Your task to perform on an android device: toggle pop-ups in chrome Image 0: 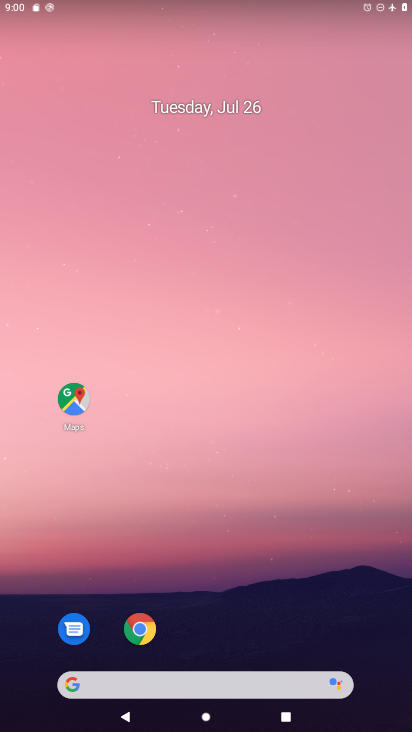
Step 0: click (134, 638)
Your task to perform on an android device: toggle pop-ups in chrome Image 1: 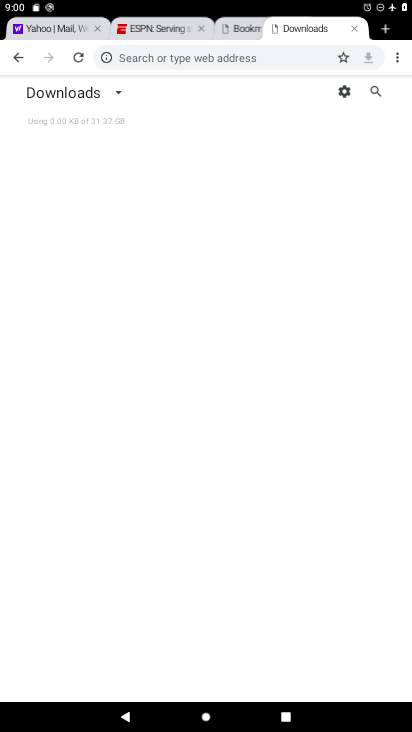
Step 1: drag from (397, 56) to (294, 260)
Your task to perform on an android device: toggle pop-ups in chrome Image 2: 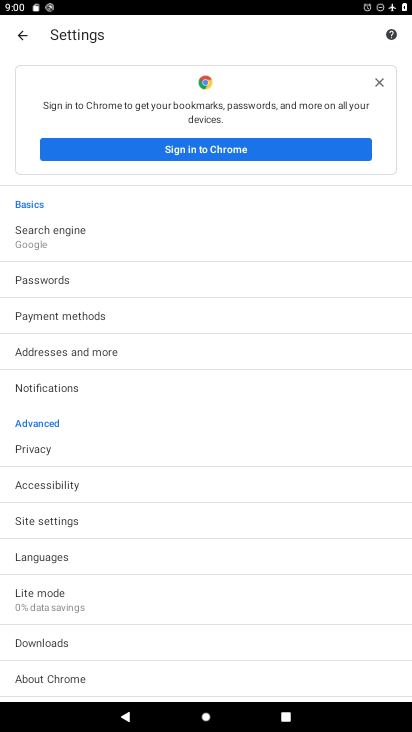
Step 2: click (26, 525)
Your task to perform on an android device: toggle pop-ups in chrome Image 3: 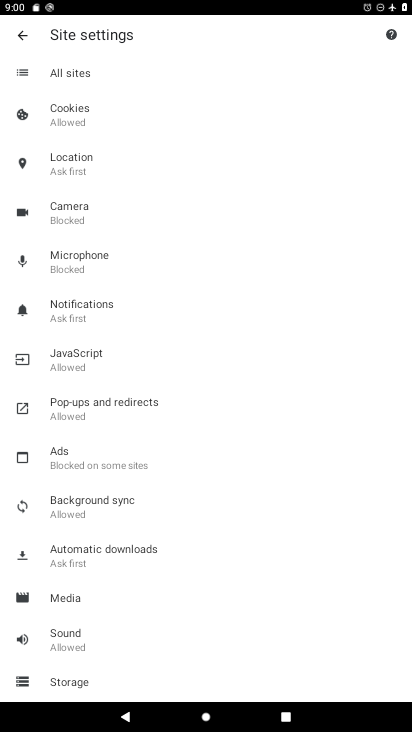
Step 3: click (71, 403)
Your task to perform on an android device: toggle pop-ups in chrome Image 4: 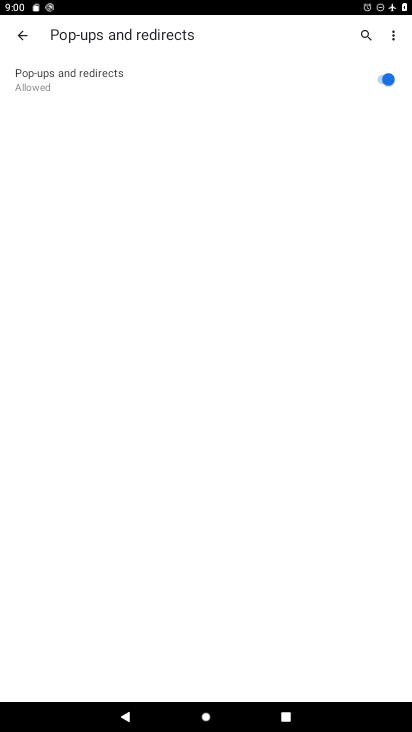
Step 4: click (379, 86)
Your task to perform on an android device: toggle pop-ups in chrome Image 5: 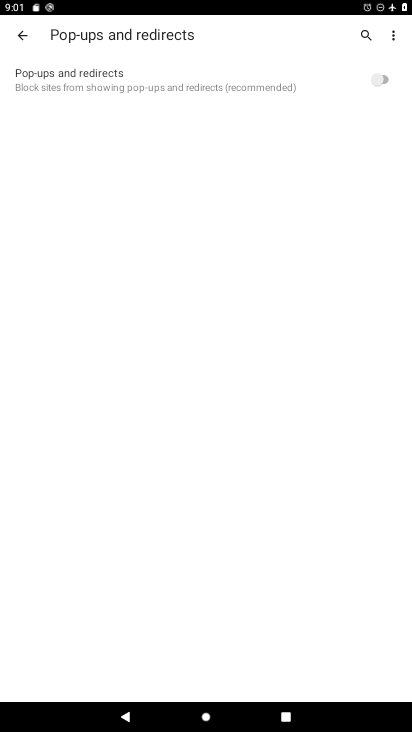
Step 5: task complete